Your task to perform on an android device: Search for Mexican restaurants on Maps Image 0: 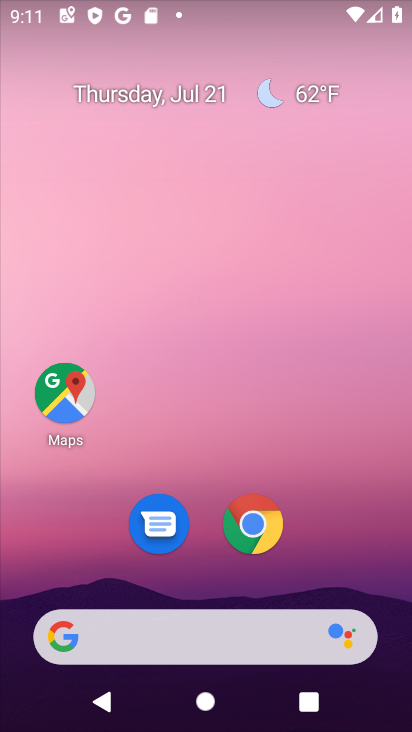
Step 0: click (62, 397)
Your task to perform on an android device: Search for Mexican restaurants on Maps Image 1: 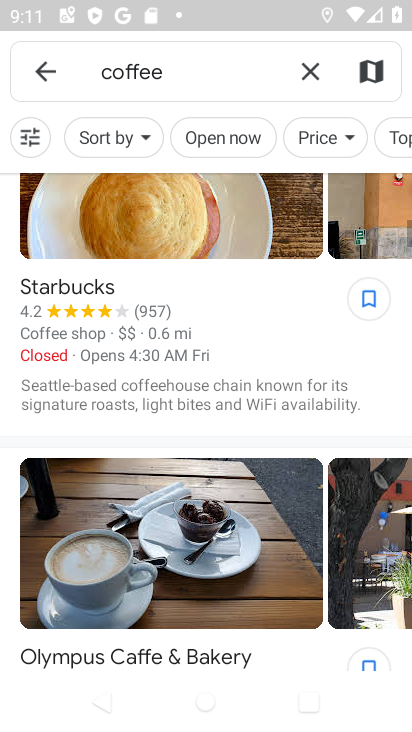
Step 1: click (306, 75)
Your task to perform on an android device: Search for Mexican restaurants on Maps Image 2: 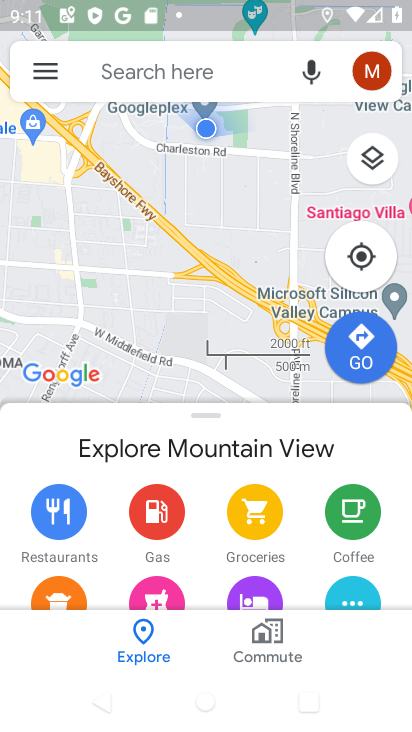
Step 2: click (138, 65)
Your task to perform on an android device: Search for Mexican restaurants on Maps Image 3: 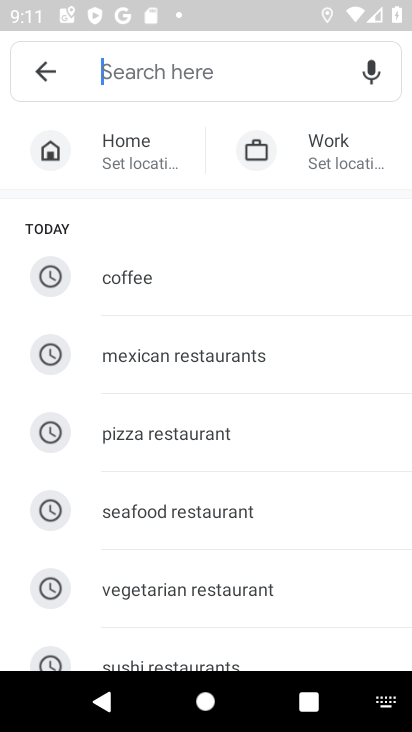
Step 3: click (154, 354)
Your task to perform on an android device: Search for Mexican restaurants on Maps Image 4: 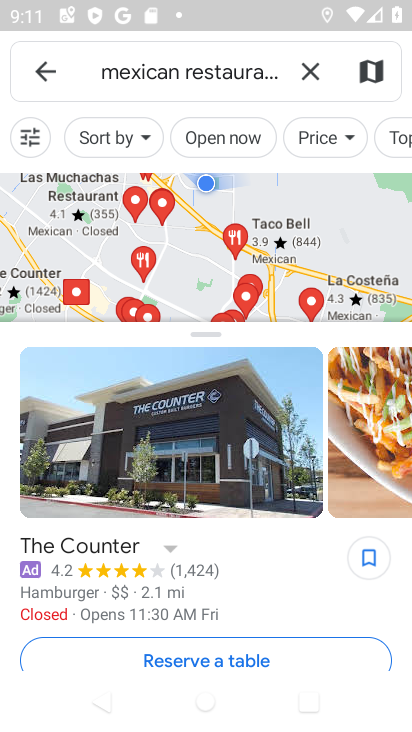
Step 4: task complete